Your task to perform on an android device: change notification settings in the gmail app Image 0: 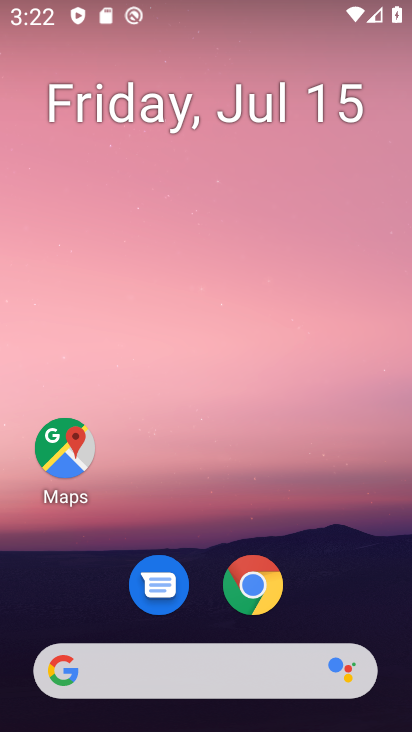
Step 0: click (117, 91)
Your task to perform on an android device: change notification settings in the gmail app Image 1: 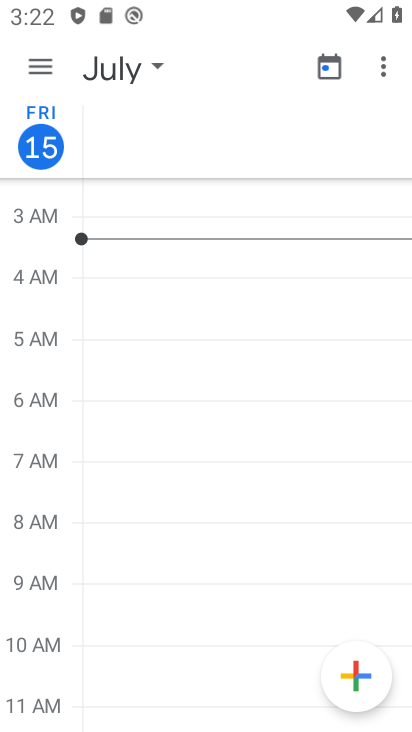
Step 1: press home button
Your task to perform on an android device: change notification settings in the gmail app Image 2: 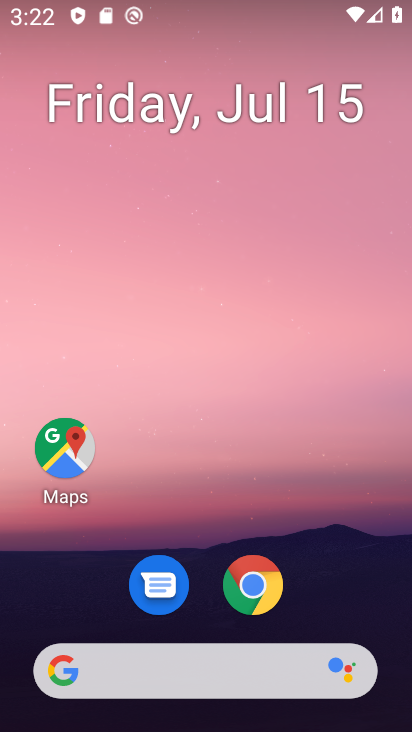
Step 2: drag from (218, 657) to (186, 85)
Your task to perform on an android device: change notification settings in the gmail app Image 3: 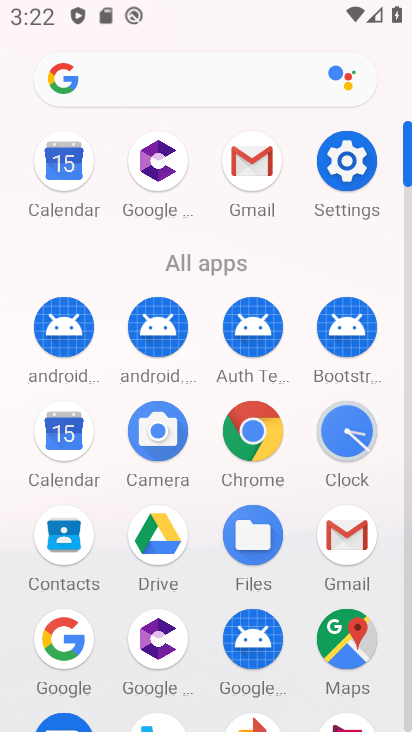
Step 3: click (252, 189)
Your task to perform on an android device: change notification settings in the gmail app Image 4: 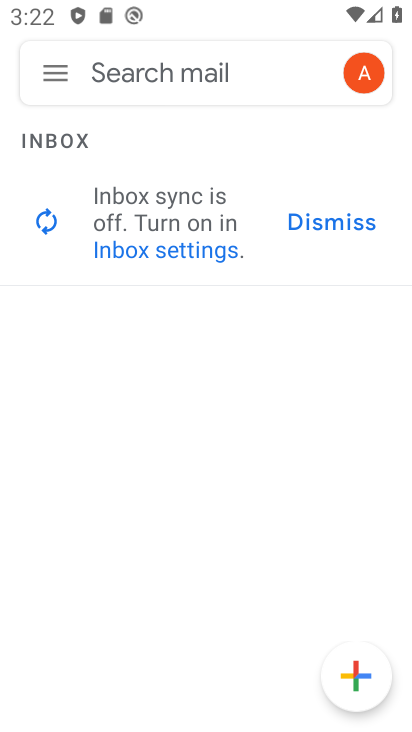
Step 4: click (47, 71)
Your task to perform on an android device: change notification settings in the gmail app Image 5: 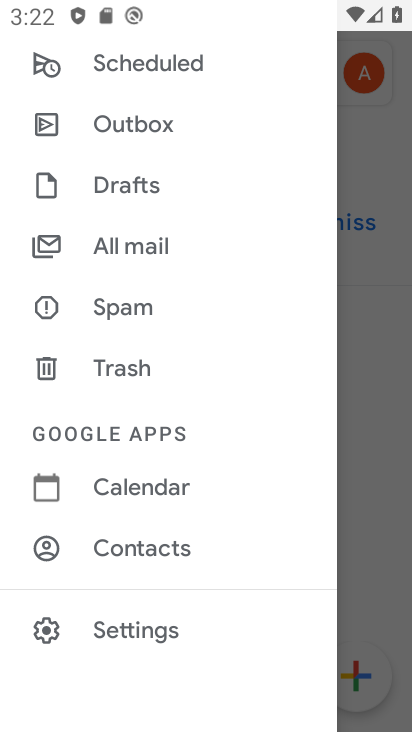
Step 5: click (153, 636)
Your task to perform on an android device: change notification settings in the gmail app Image 6: 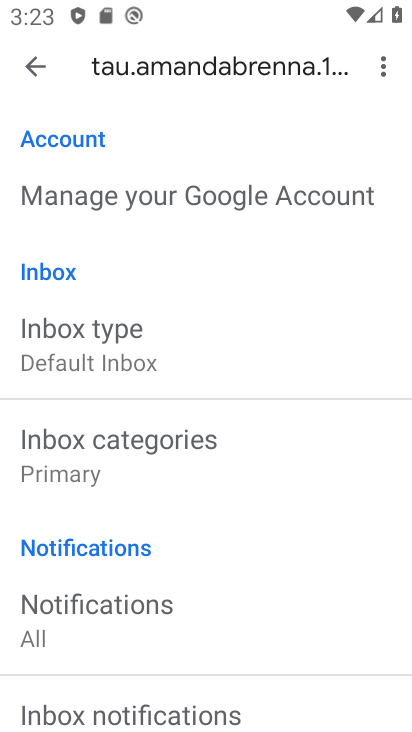
Step 6: drag from (192, 582) to (208, 146)
Your task to perform on an android device: change notification settings in the gmail app Image 7: 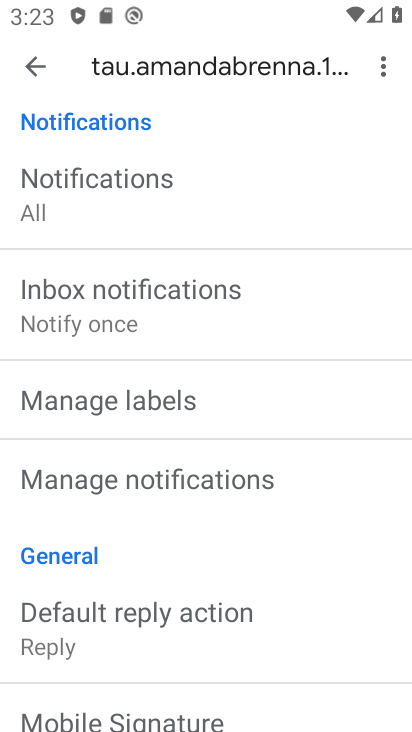
Step 7: click (161, 501)
Your task to perform on an android device: change notification settings in the gmail app Image 8: 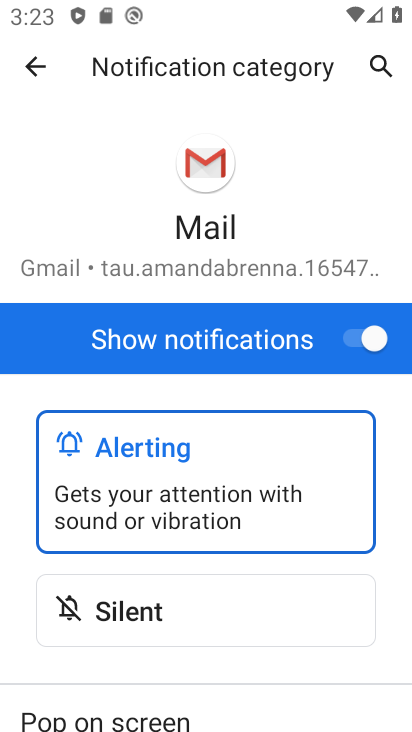
Step 8: click (367, 351)
Your task to perform on an android device: change notification settings in the gmail app Image 9: 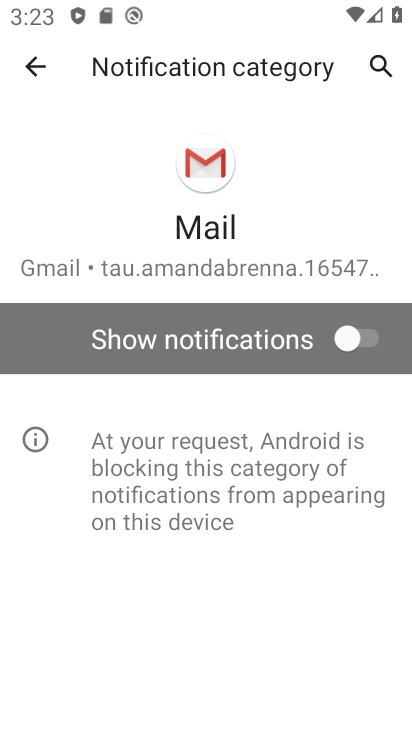
Step 9: task complete